Your task to perform on an android device: Open accessibility settings Image 0: 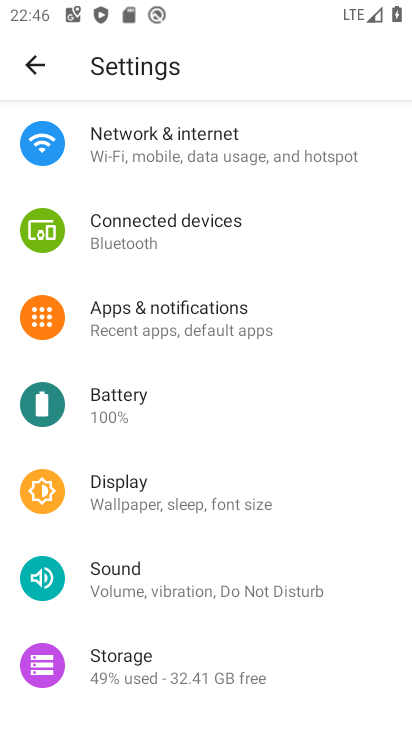
Step 0: drag from (218, 568) to (218, 352)
Your task to perform on an android device: Open accessibility settings Image 1: 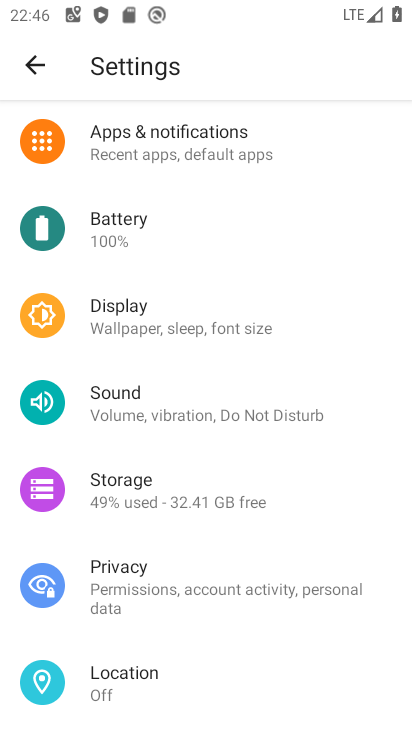
Step 1: drag from (189, 641) to (181, 345)
Your task to perform on an android device: Open accessibility settings Image 2: 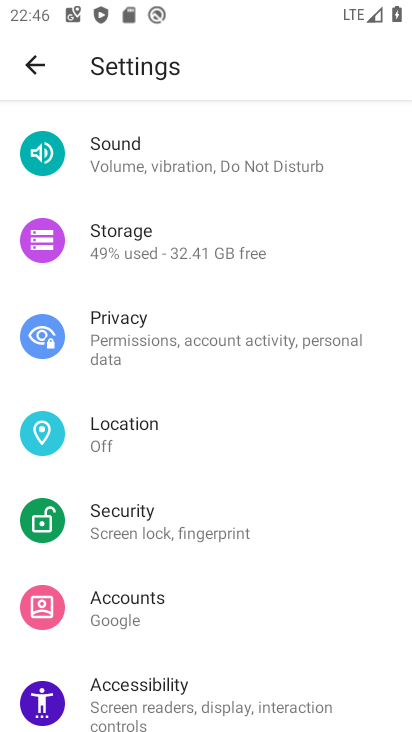
Step 2: click (141, 691)
Your task to perform on an android device: Open accessibility settings Image 3: 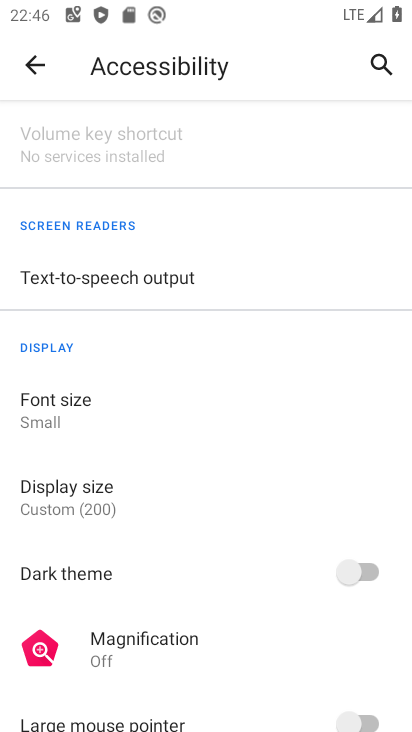
Step 3: task complete